Your task to perform on an android device: Show me the alarms in the clock app Image 0: 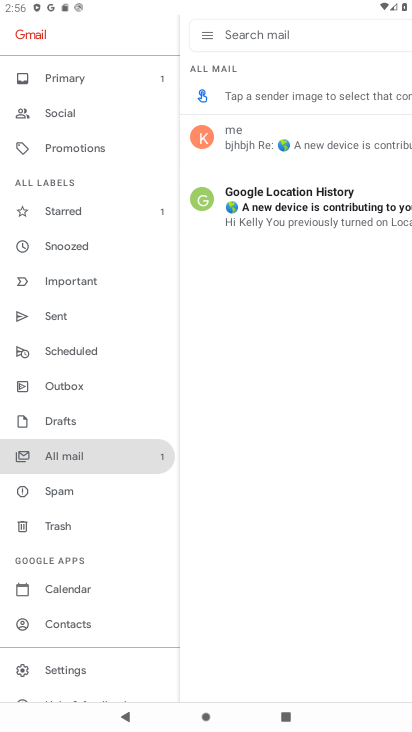
Step 0: press home button
Your task to perform on an android device: Show me the alarms in the clock app Image 1: 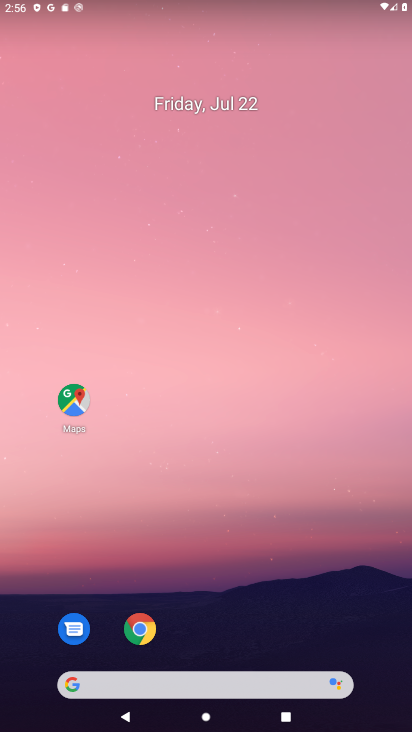
Step 1: drag from (226, 568) to (180, 37)
Your task to perform on an android device: Show me the alarms in the clock app Image 2: 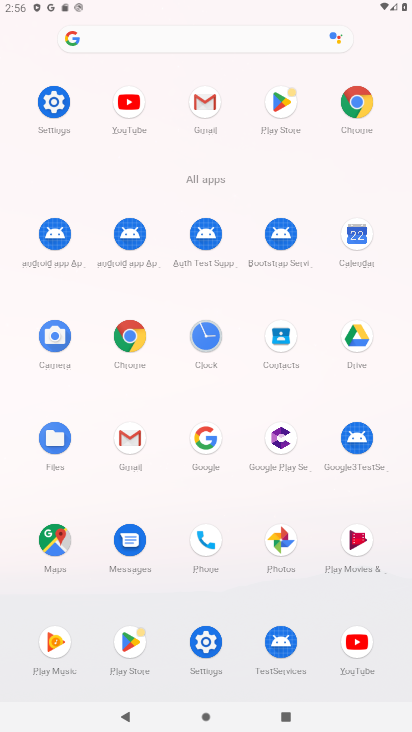
Step 2: click (205, 333)
Your task to perform on an android device: Show me the alarms in the clock app Image 3: 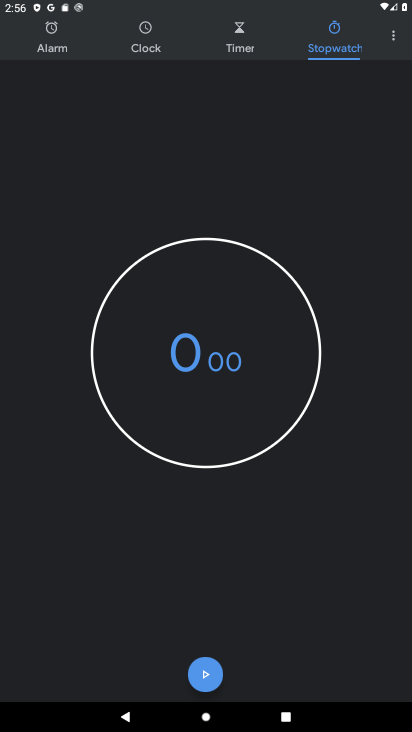
Step 3: click (47, 30)
Your task to perform on an android device: Show me the alarms in the clock app Image 4: 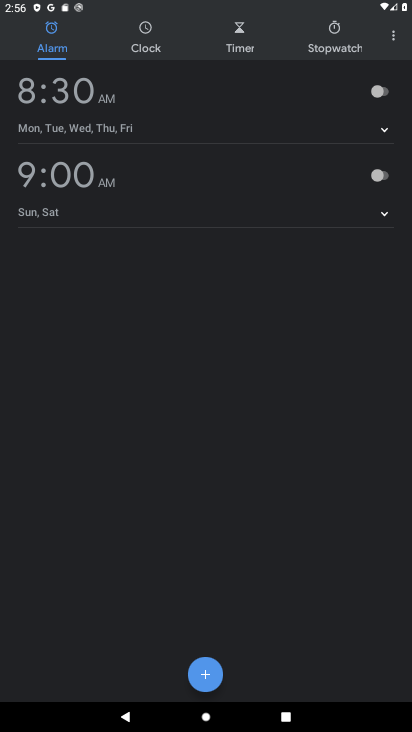
Step 4: task complete